Your task to perform on an android device: snooze an email in the gmail app Image 0: 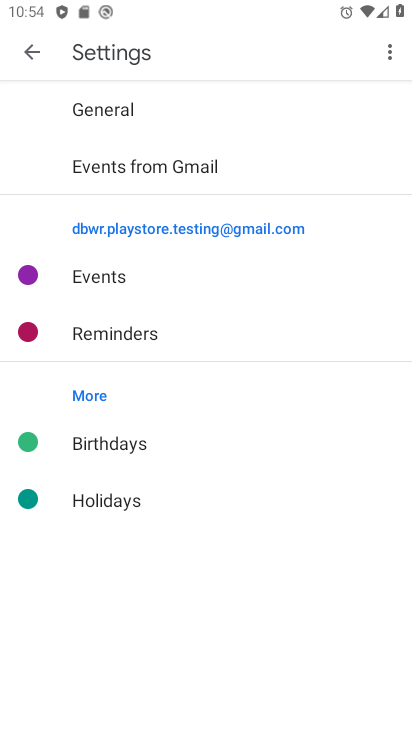
Step 0: press home button
Your task to perform on an android device: snooze an email in the gmail app Image 1: 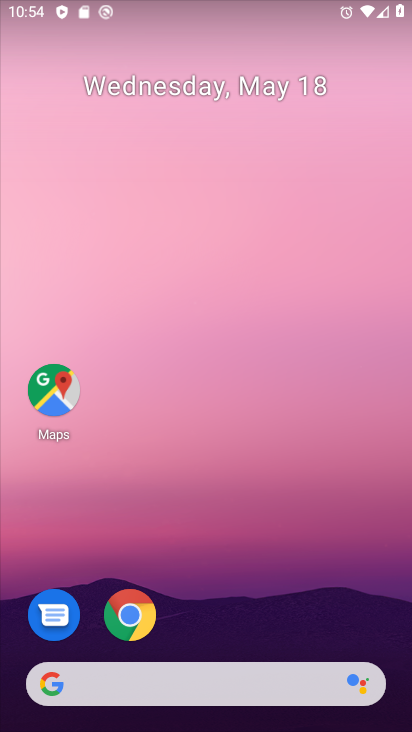
Step 1: drag from (216, 657) to (206, 217)
Your task to perform on an android device: snooze an email in the gmail app Image 2: 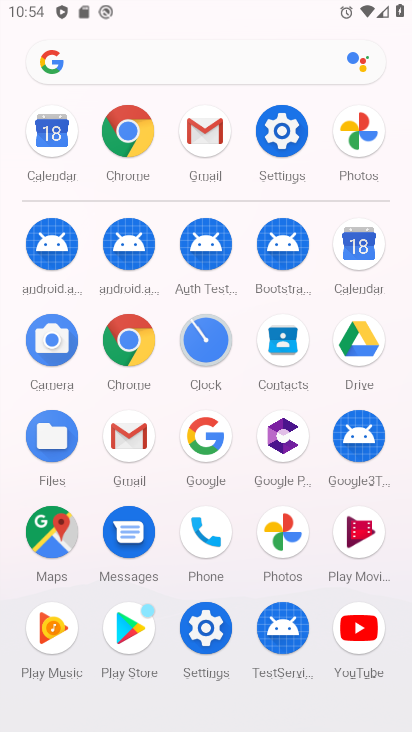
Step 2: click (192, 131)
Your task to perform on an android device: snooze an email in the gmail app Image 3: 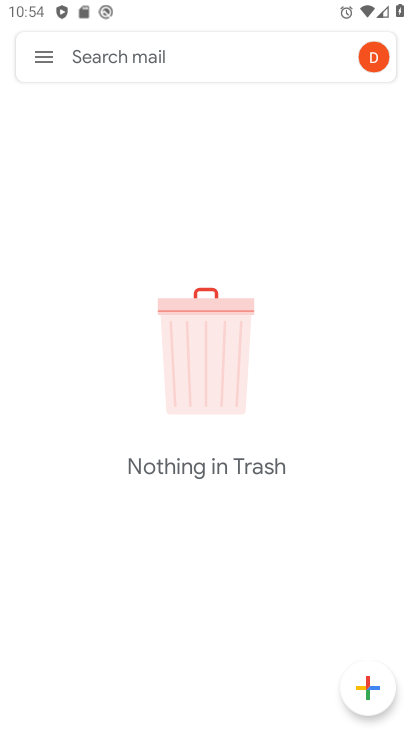
Step 3: click (42, 56)
Your task to perform on an android device: snooze an email in the gmail app Image 4: 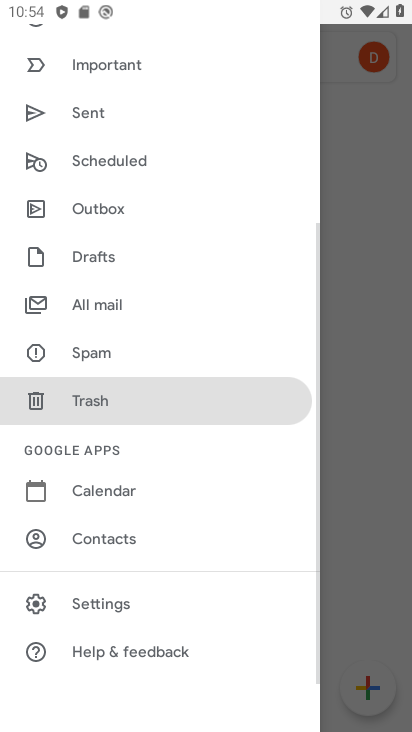
Step 4: drag from (96, 88) to (138, 517)
Your task to perform on an android device: snooze an email in the gmail app Image 5: 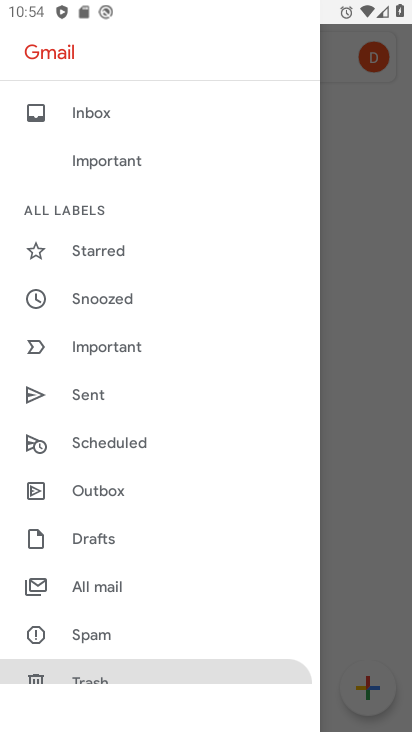
Step 5: click (78, 113)
Your task to perform on an android device: snooze an email in the gmail app Image 6: 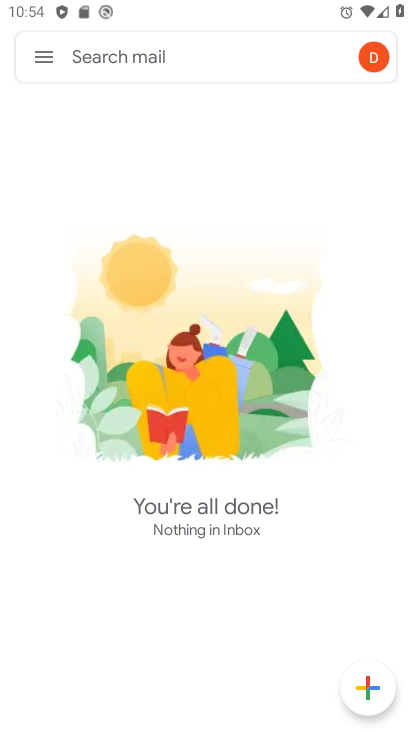
Step 6: task complete